Your task to perform on an android device: turn on improve location accuracy Image 0: 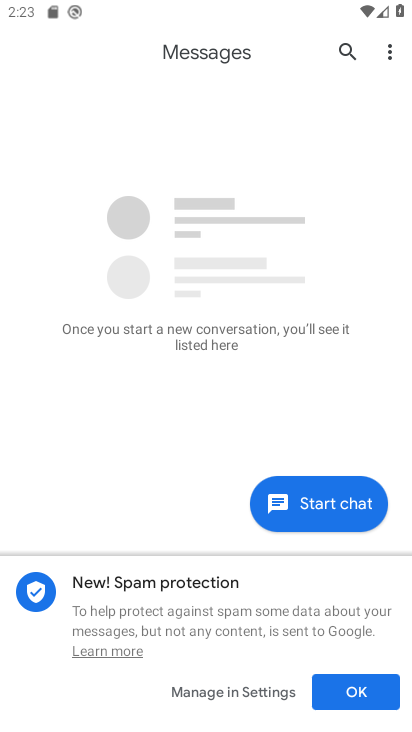
Step 0: press home button
Your task to perform on an android device: turn on improve location accuracy Image 1: 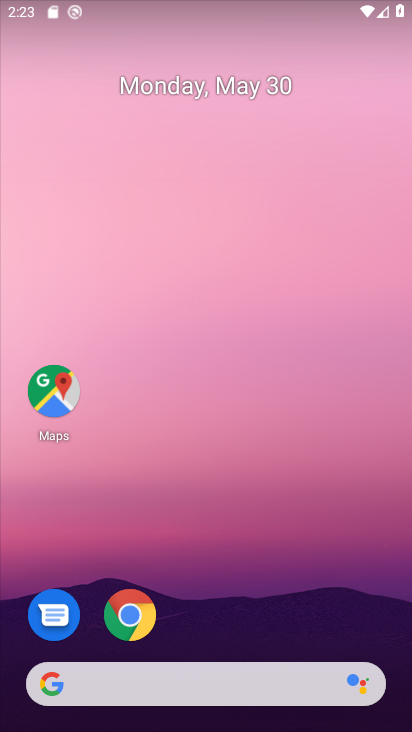
Step 1: drag from (218, 541) to (267, 17)
Your task to perform on an android device: turn on improve location accuracy Image 2: 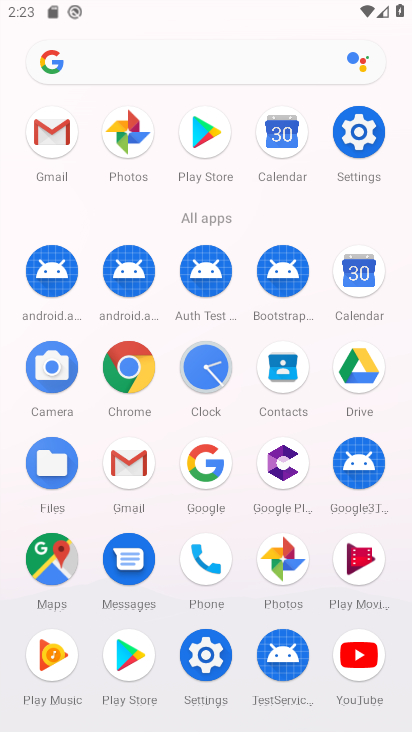
Step 2: click (367, 136)
Your task to perform on an android device: turn on improve location accuracy Image 3: 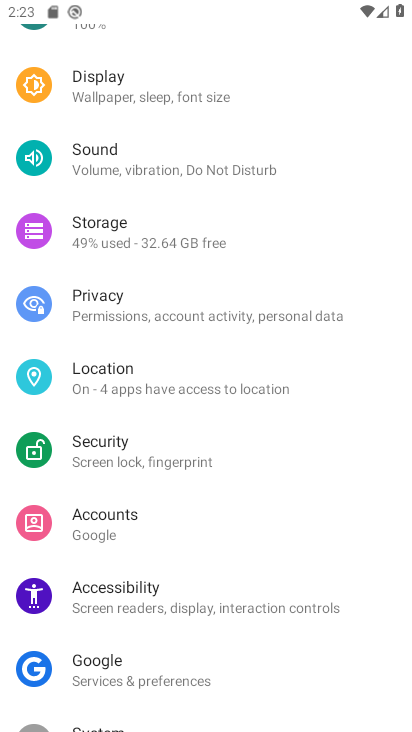
Step 3: click (257, 378)
Your task to perform on an android device: turn on improve location accuracy Image 4: 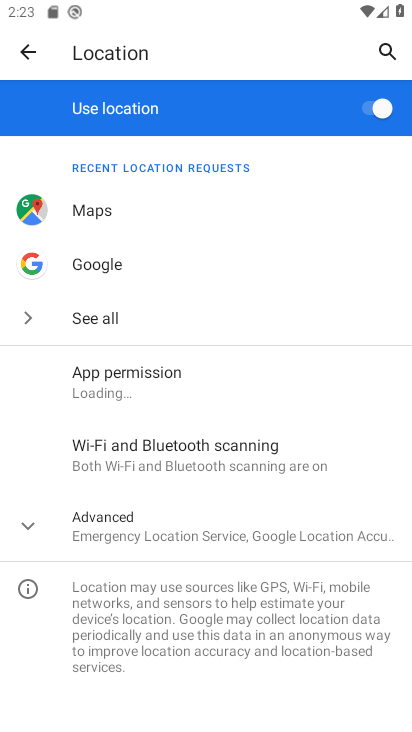
Step 4: click (27, 522)
Your task to perform on an android device: turn on improve location accuracy Image 5: 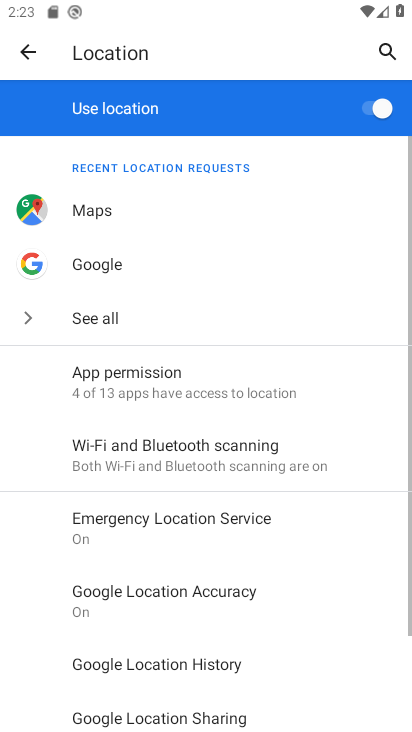
Step 5: click (235, 582)
Your task to perform on an android device: turn on improve location accuracy Image 6: 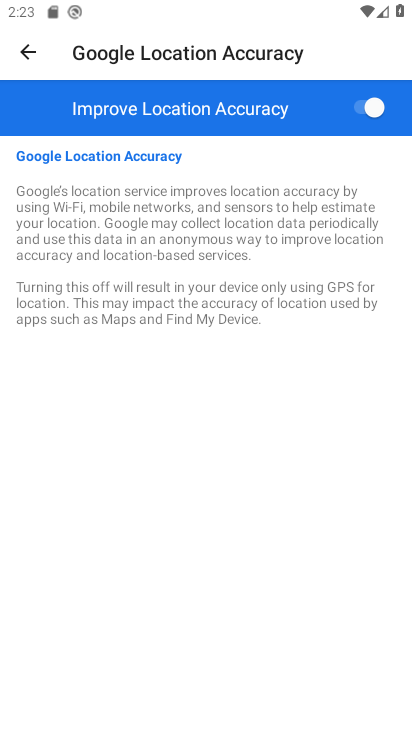
Step 6: task complete